Your task to perform on an android device: delete browsing data in the chrome app Image 0: 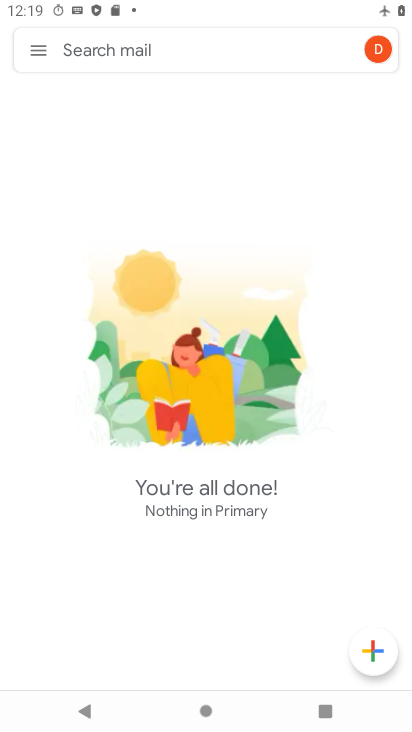
Step 0: press home button
Your task to perform on an android device: delete browsing data in the chrome app Image 1: 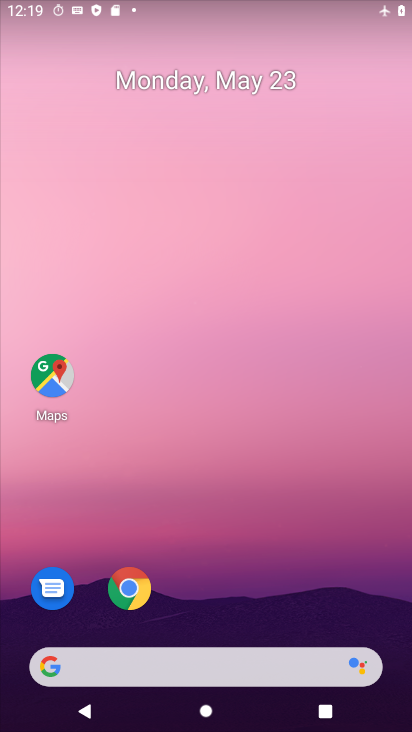
Step 1: click (124, 583)
Your task to perform on an android device: delete browsing data in the chrome app Image 2: 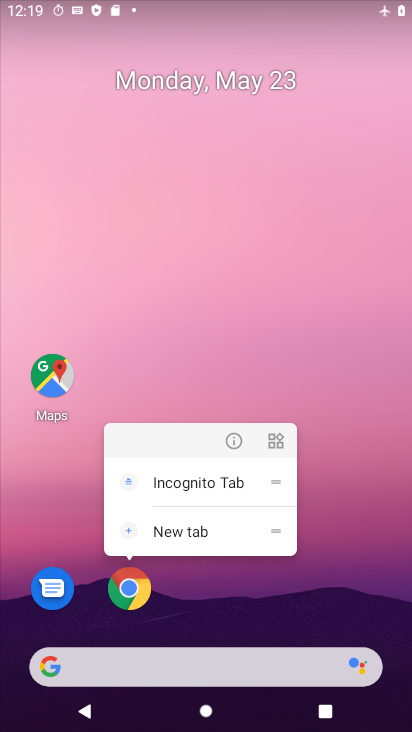
Step 2: click (125, 586)
Your task to perform on an android device: delete browsing data in the chrome app Image 3: 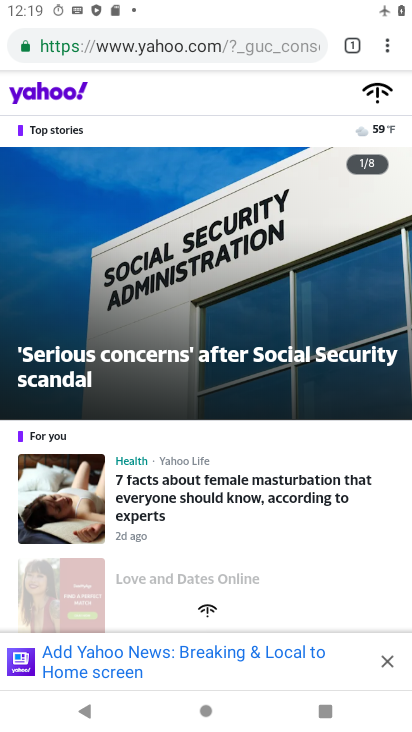
Step 3: click (387, 51)
Your task to perform on an android device: delete browsing data in the chrome app Image 4: 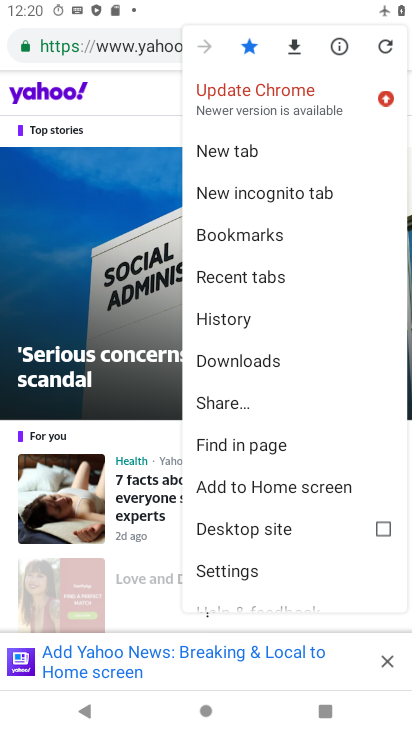
Step 4: click (231, 323)
Your task to perform on an android device: delete browsing data in the chrome app Image 5: 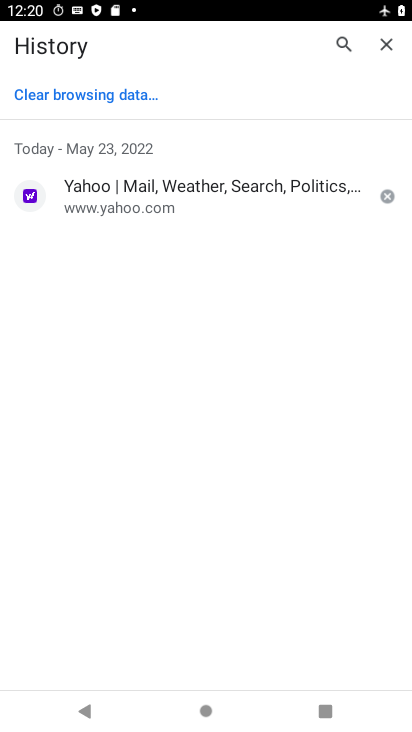
Step 5: click (104, 92)
Your task to perform on an android device: delete browsing data in the chrome app Image 6: 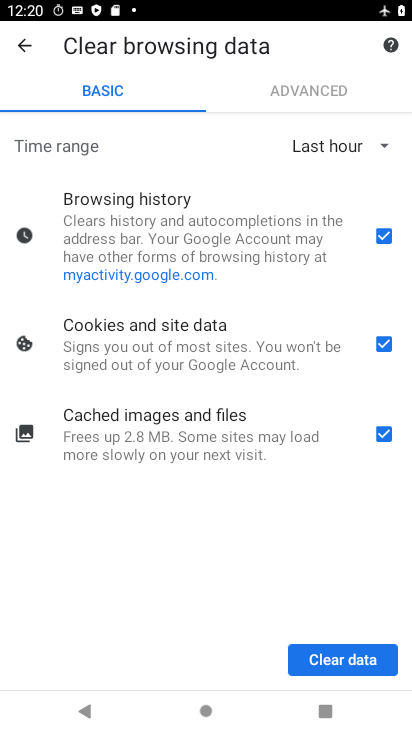
Step 6: click (385, 436)
Your task to perform on an android device: delete browsing data in the chrome app Image 7: 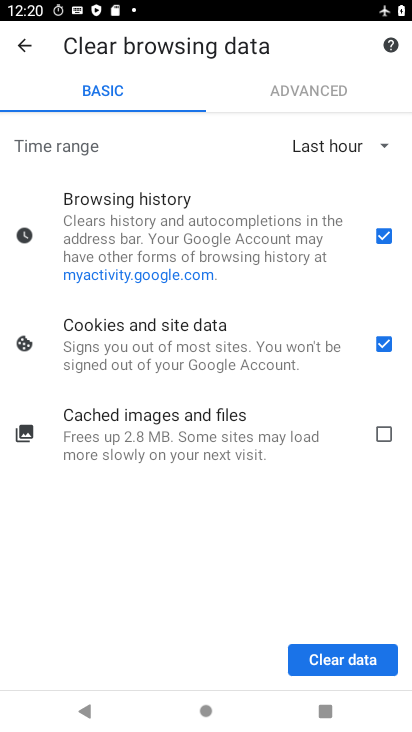
Step 7: click (380, 335)
Your task to perform on an android device: delete browsing data in the chrome app Image 8: 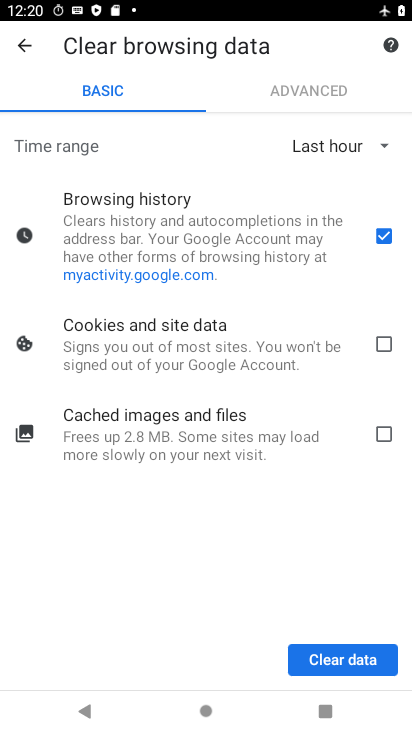
Step 8: click (356, 651)
Your task to perform on an android device: delete browsing data in the chrome app Image 9: 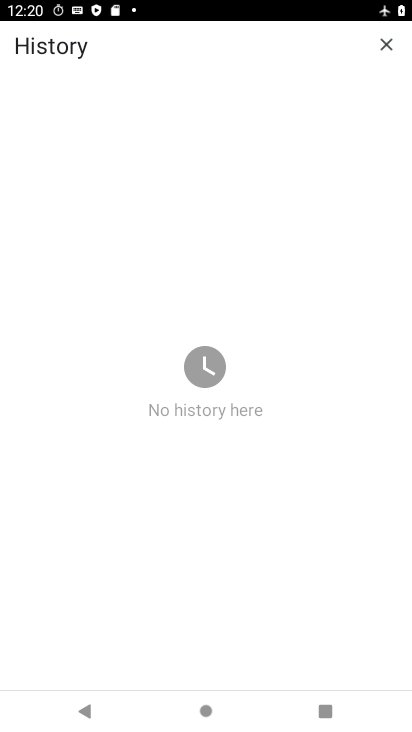
Step 9: task complete